Your task to perform on an android device: Open calendar and show me the second week of next month Image 0: 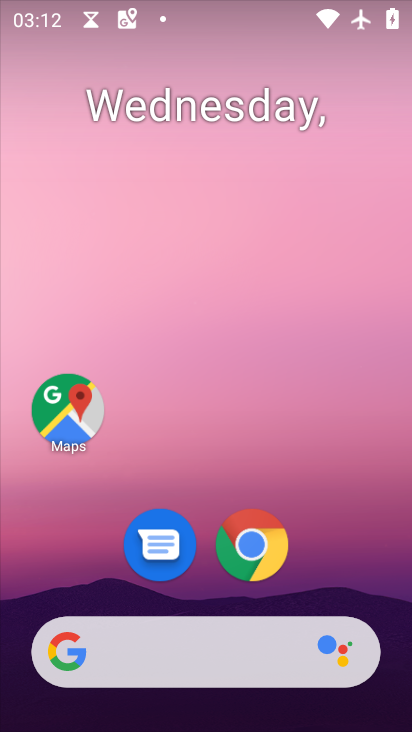
Step 0: press home button
Your task to perform on an android device: Open calendar and show me the second week of next month Image 1: 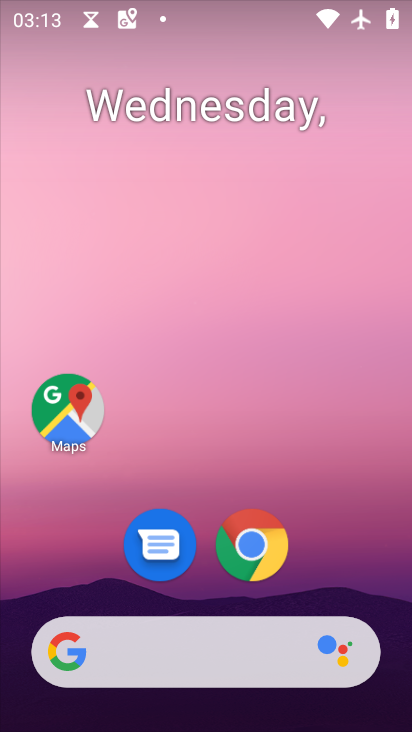
Step 1: drag from (183, 606) to (210, 142)
Your task to perform on an android device: Open calendar and show me the second week of next month Image 2: 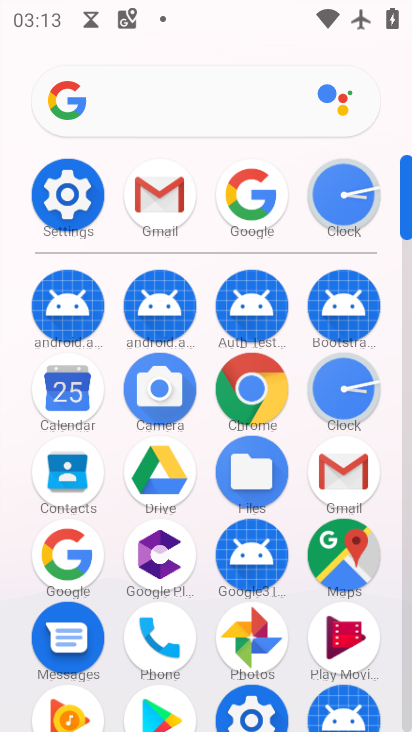
Step 2: click (72, 402)
Your task to perform on an android device: Open calendar and show me the second week of next month Image 3: 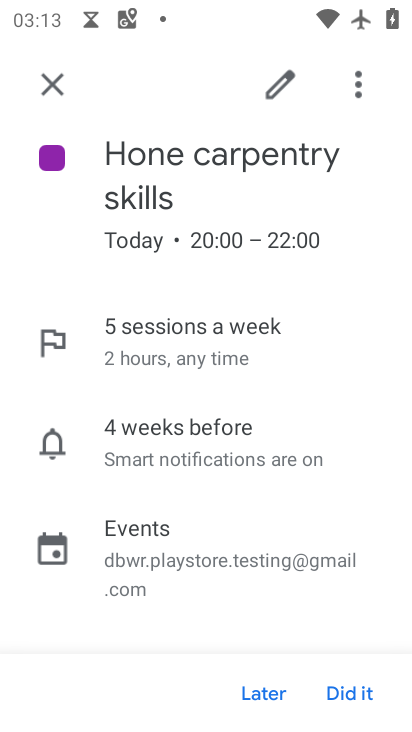
Step 3: click (53, 86)
Your task to perform on an android device: Open calendar and show me the second week of next month Image 4: 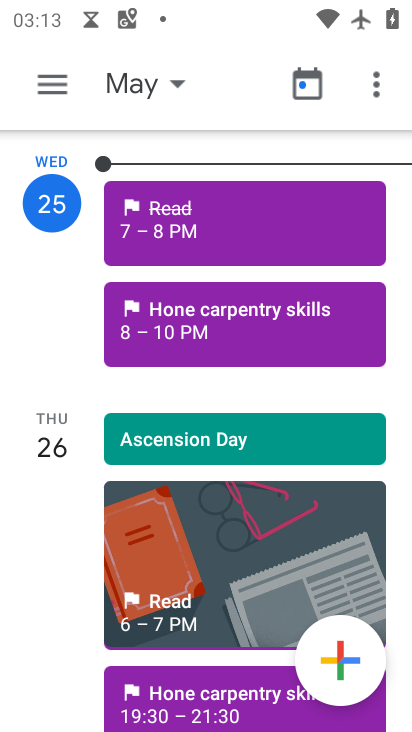
Step 4: click (146, 83)
Your task to perform on an android device: Open calendar and show me the second week of next month Image 5: 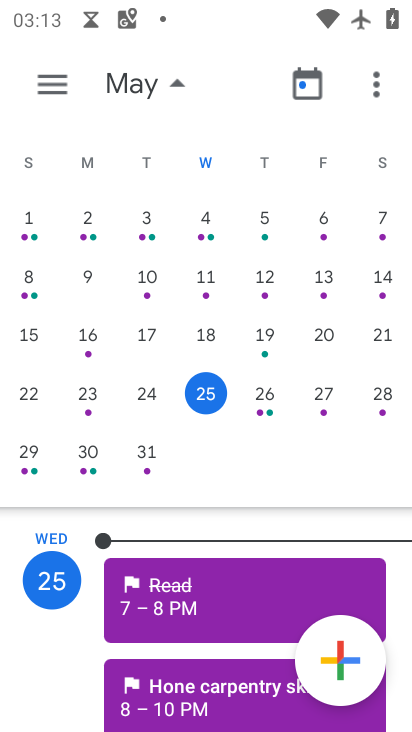
Step 5: drag from (386, 309) to (34, 332)
Your task to perform on an android device: Open calendar and show me the second week of next month Image 6: 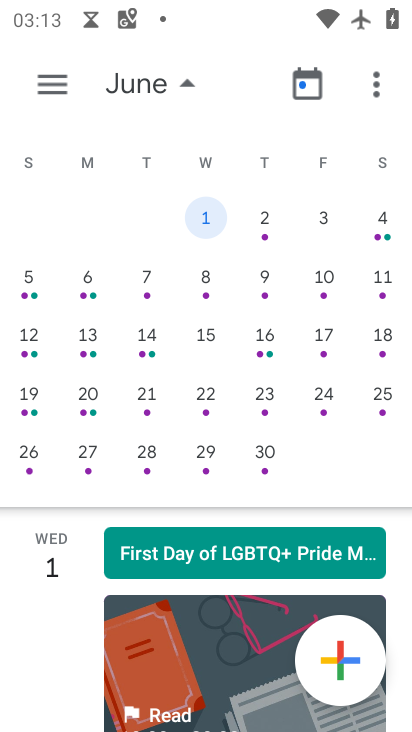
Step 6: click (36, 279)
Your task to perform on an android device: Open calendar and show me the second week of next month Image 7: 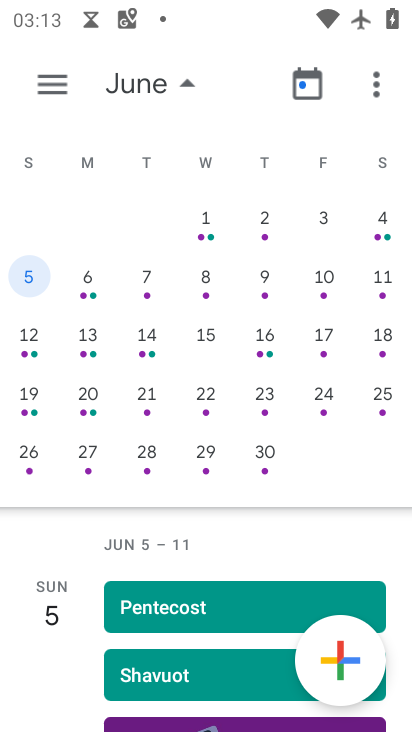
Step 7: click (44, 88)
Your task to perform on an android device: Open calendar and show me the second week of next month Image 8: 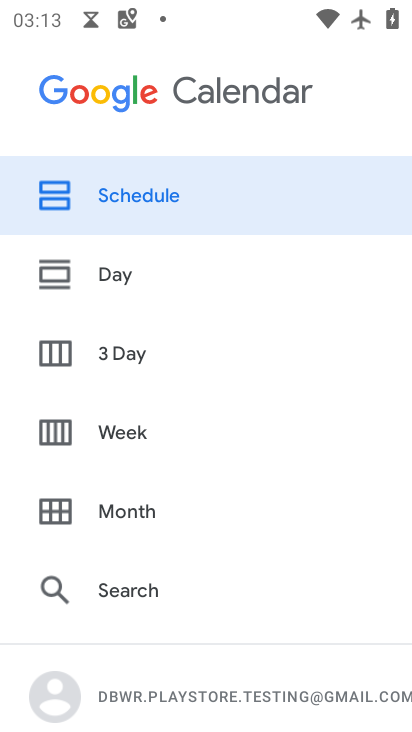
Step 8: click (139, 429)
Your task to perform on an android device: Open calendar and show me the second week of next month Image 9: 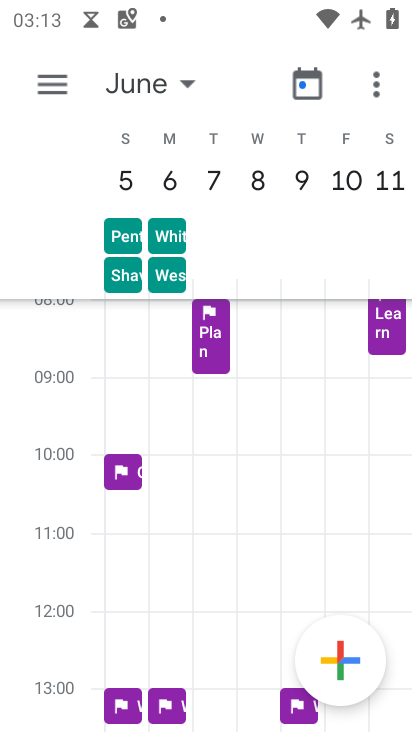
Step 9: task complete